Your task to perform on an android device: Search for vegetarian restaurants on Maps Image 0: 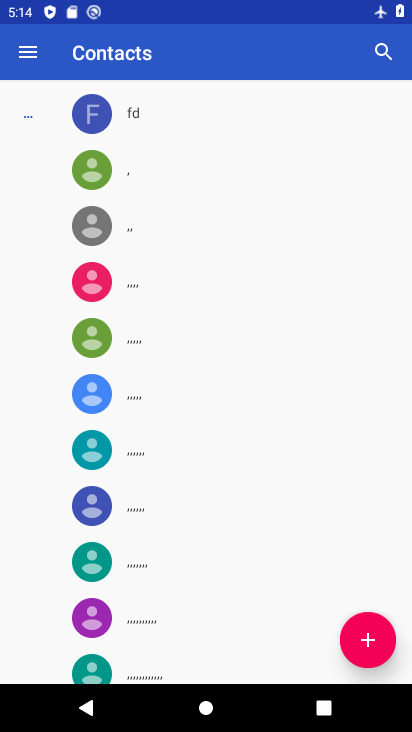
Step 0: press back button
Your task to perform on an android device: Search for vegetarian restaurants on Maps Image 1: 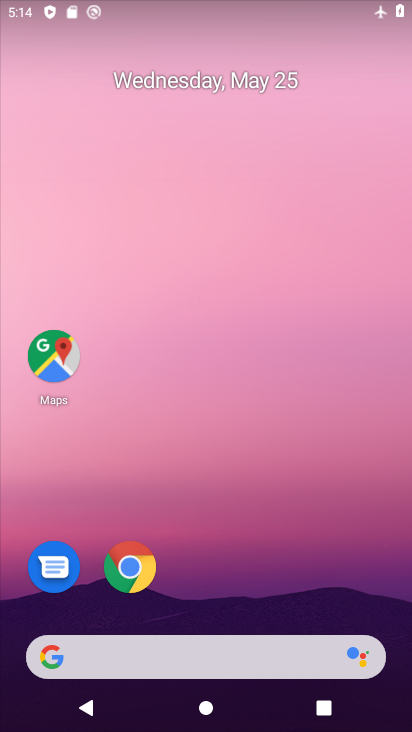
Step 1: drag from (205, 542) to (204, 45)
Your task to perform on an android device: Search for vegetarian restaurants on Maps Image 2: 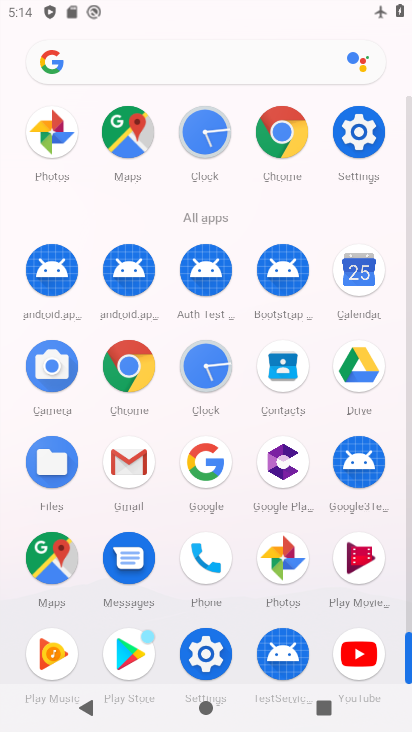
Step 2: drag from (0, 589) to (41, 184)
Your task to perform on an android device: Search for vegetarian restaurants on Maps Image 3: 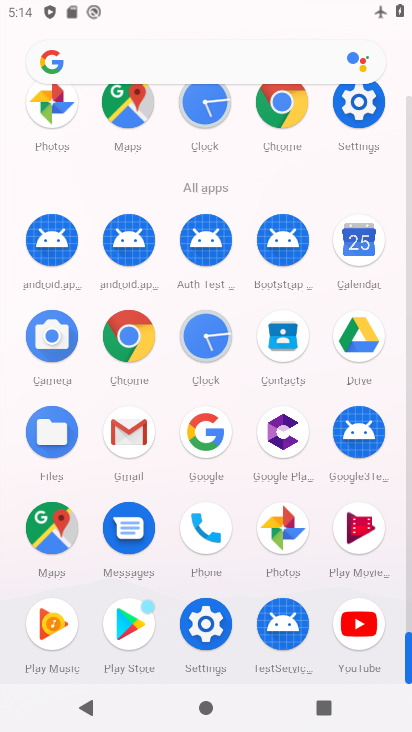
Step 3: click (205, 620)
Your task to perform on an android device: Search for vegetarian restaurants on Maps Image 4: 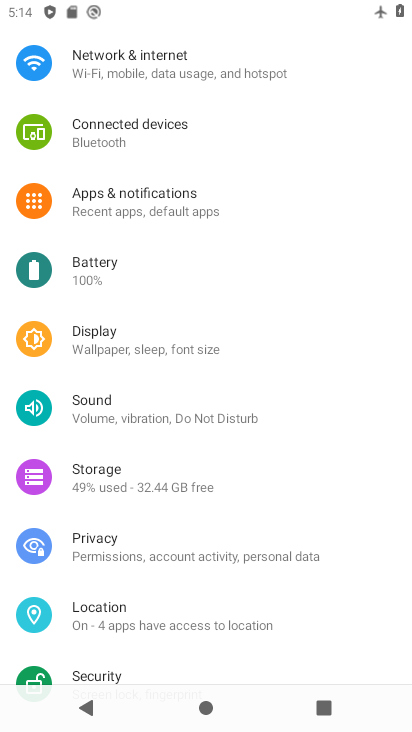
Step 4: press back button
Your task to perform on an android device: Search for vegetarian restaurants on Maps Image 5: 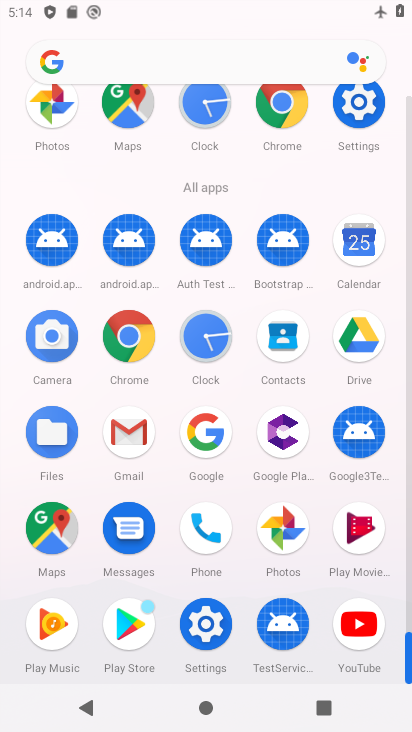
Step 5: click (51, 527)
Your task to perform on an android device: Search for vegetarian restaurants on Maps Image 6: 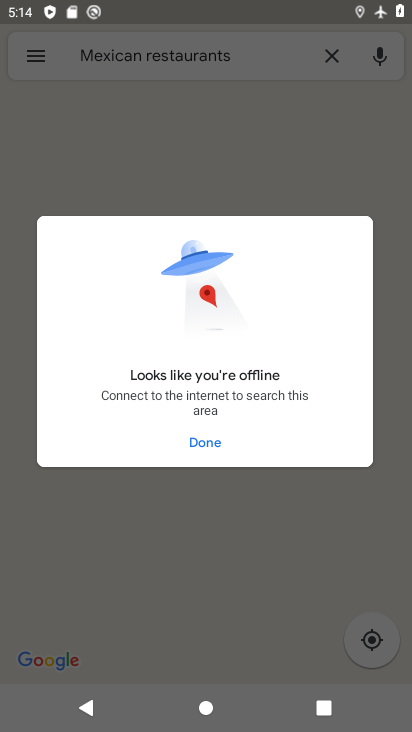
Step 6: click (221, 440)
Your task to perform on an android device: Search for vegetarian restaurants on Maps Image 7: 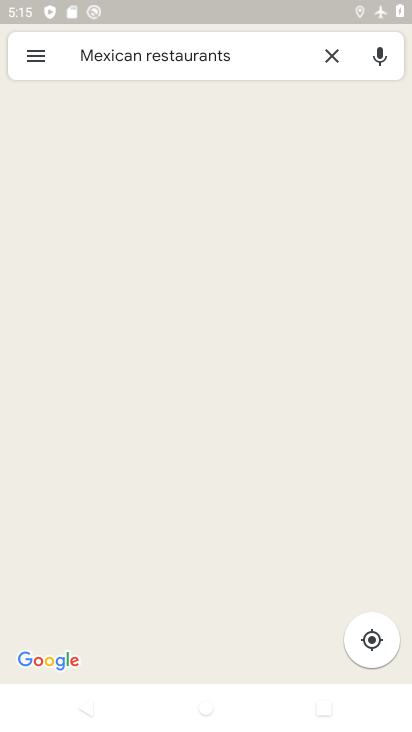
Step 7: drag from (323, 9) to (304, 365)
Your task to perform on an android device: Search for vegetarian restaurants on Maps Image 8: 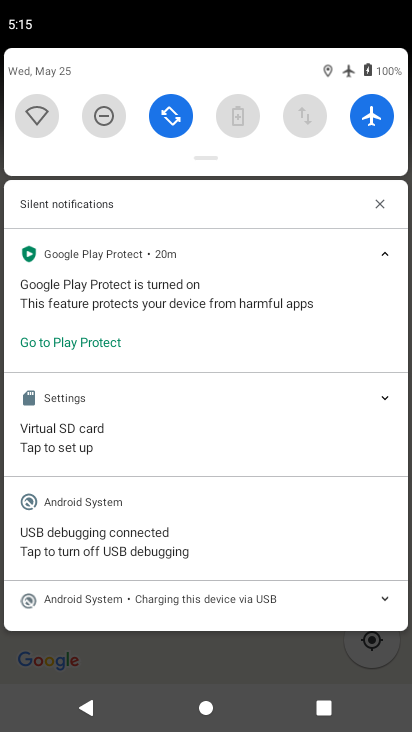
Step 8: click (30, 111)
Your task to perform on an android device: Search for vegetarian restaurants on Maps Image 9: 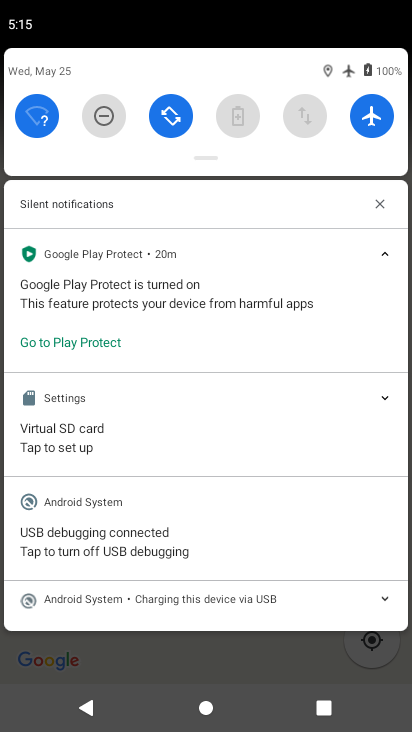
Step 9: drag from (145, 655) to (187, 243)
Your task to perform on an android device: Search for vegetarian restaurants on Maps Image 10: 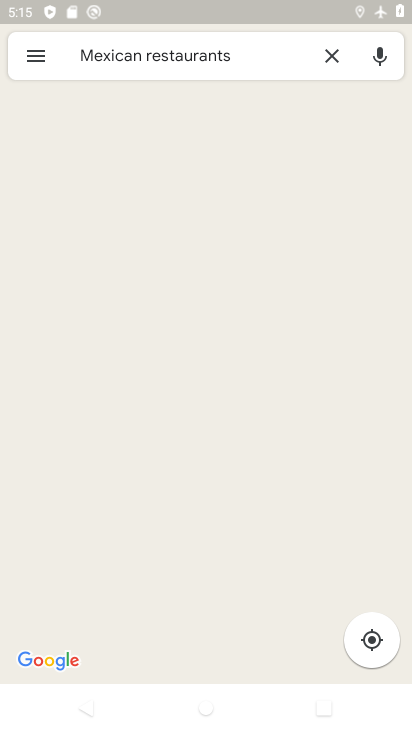
Step 10: click (332, 58)
Your task to perform on an android device: Search for vegetarian restaurants on Maps Image 11: 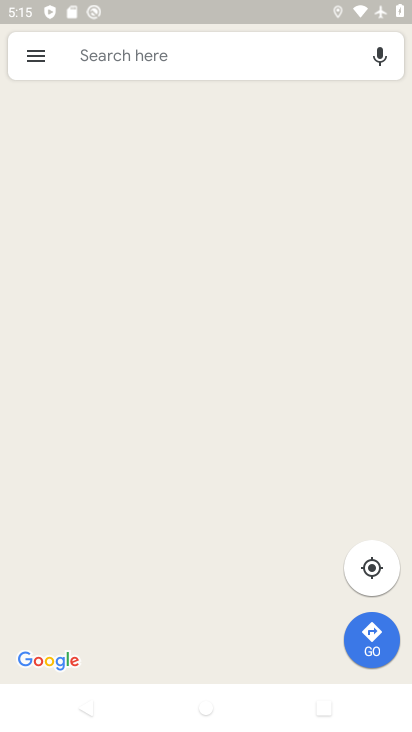
Step 11: click (186, 57)
Your task to perform on an android device: Search for vegetarian restaurants on Maps Image 12: 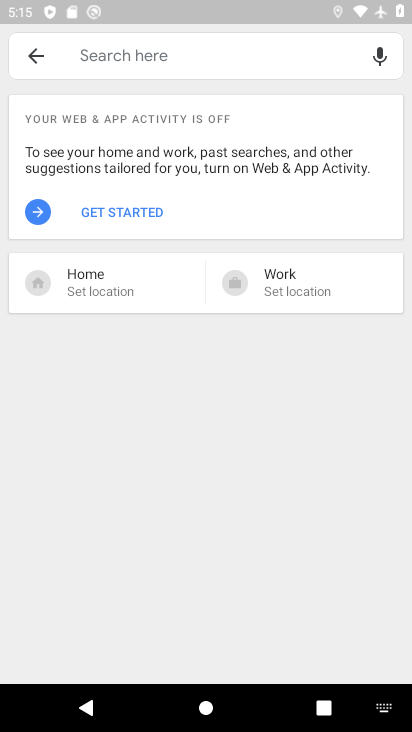
Step 12: type "vegetarian restaurants"
Your task to perform on an android device: Search for vegetarian restaurants on Maps Image 13: 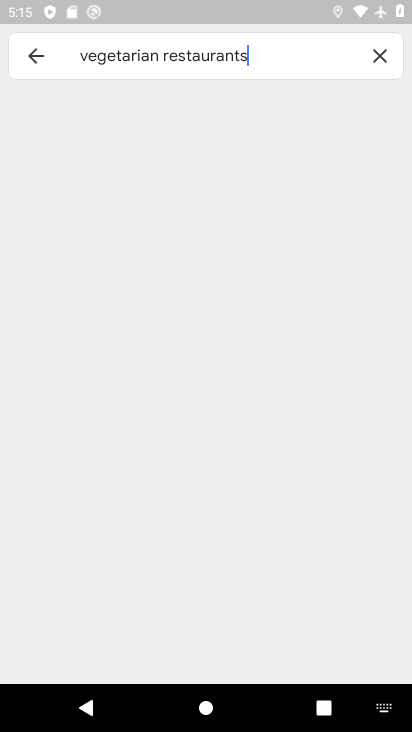
Step 13: type ""
Your task to perform on an android device: Search for vegetarian restaurants on Maps Image 14: 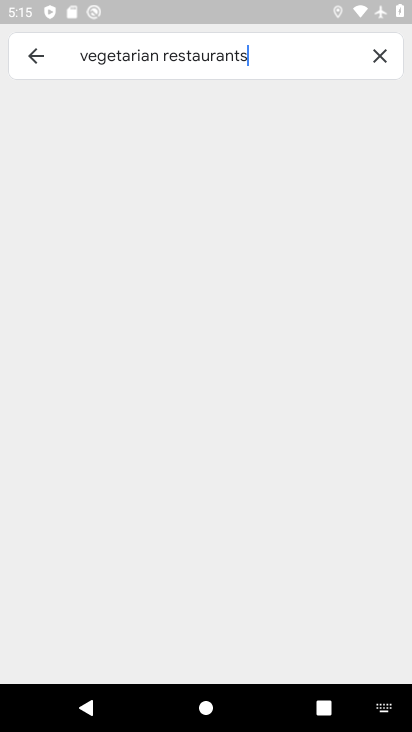
Step 14: task complete